Your task to perform on an android device: Search for the new Nintendo switch on Best Buy Image 0: 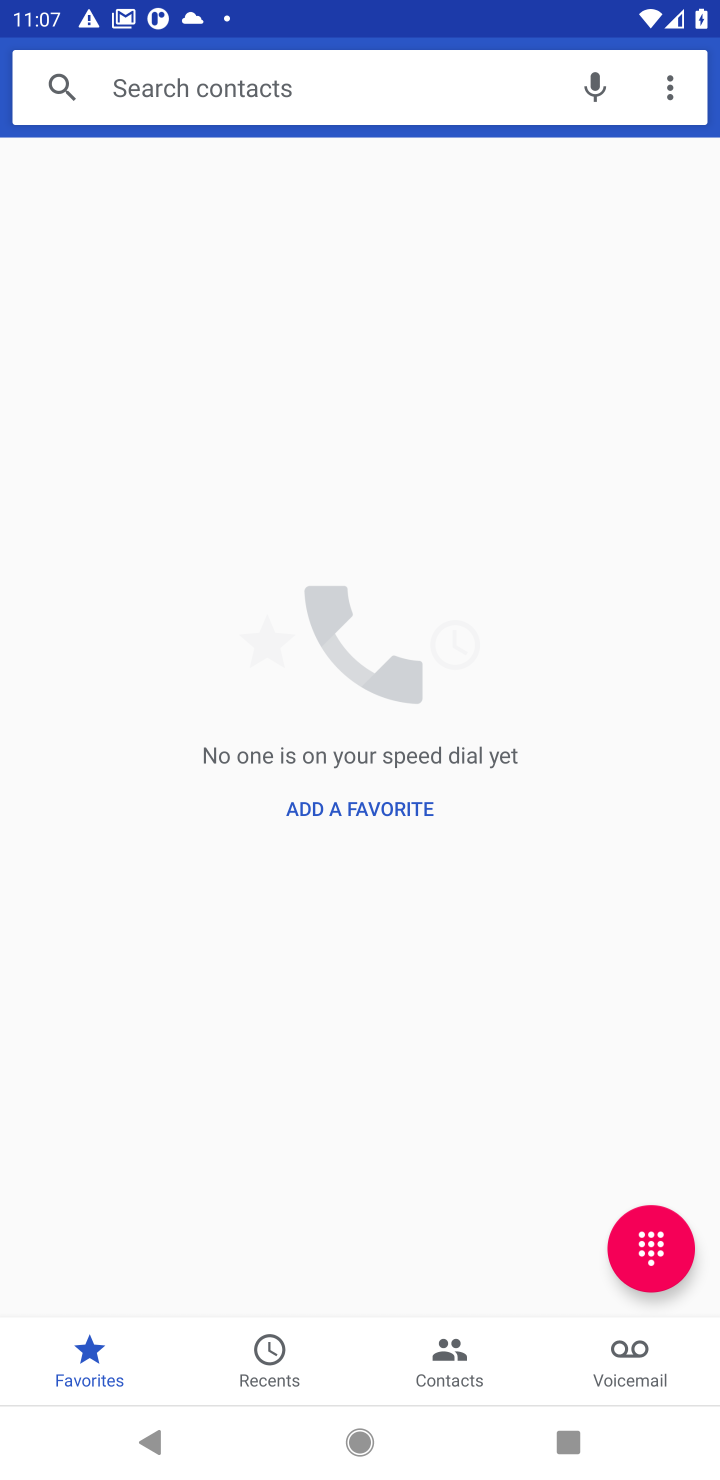
Step 0: press home button
Your task to perform on an android device: Search for the new Nintendo switch on Best Buy Image 1: 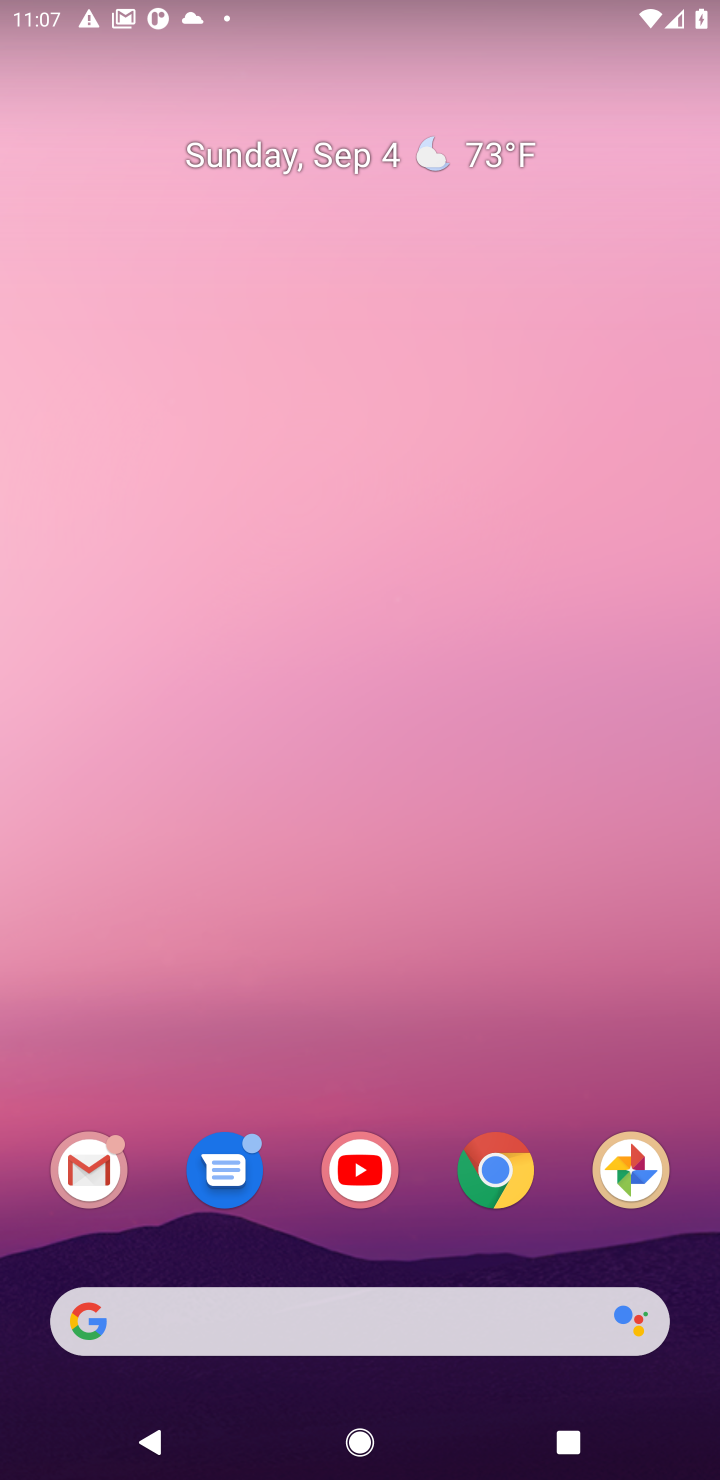
Step 1: drag from (378, 1283) to (322, 5)
Your task to perform on an android device: Search for the new Nintendo switch on Best Buy Image 2: 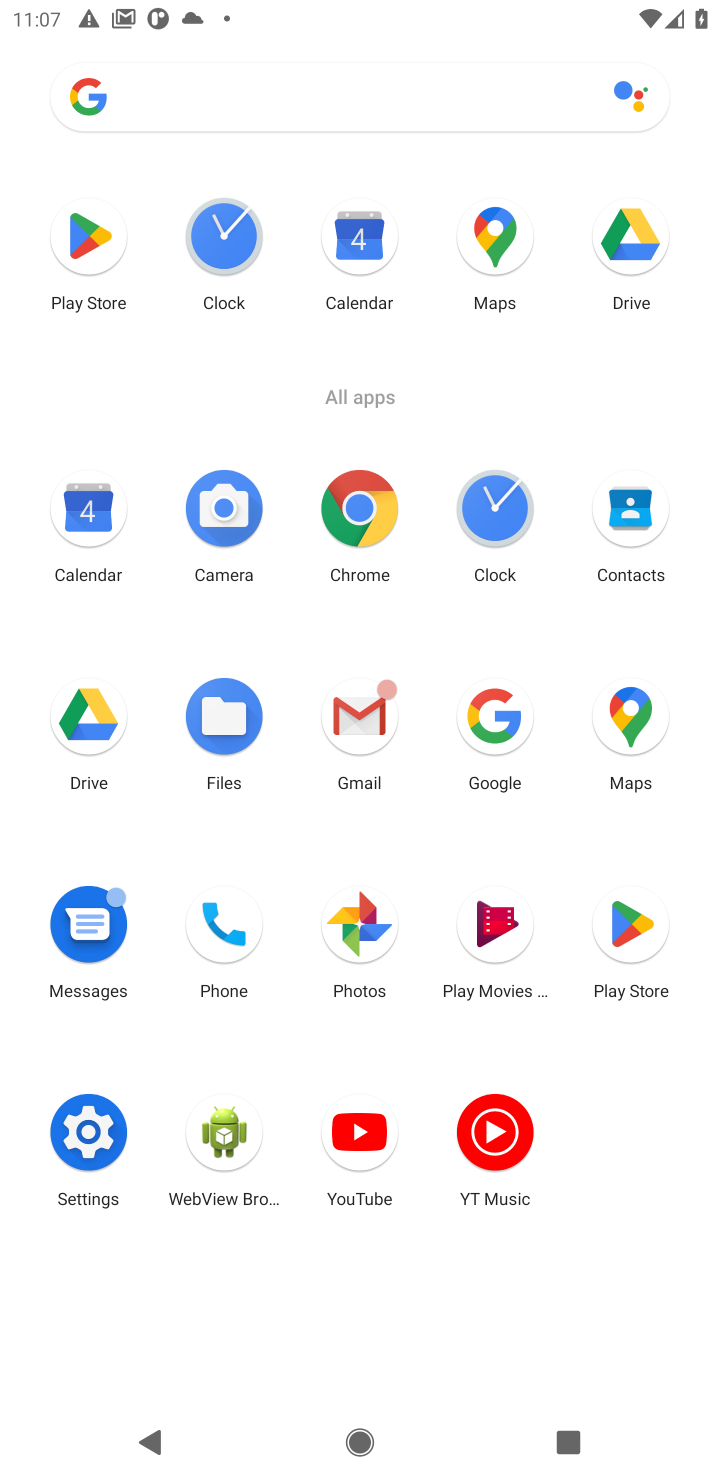
Step 2: click (348, 510)
Your task to perform on an android device: Search for the new Nintendo switch on Best Buy Image 3: 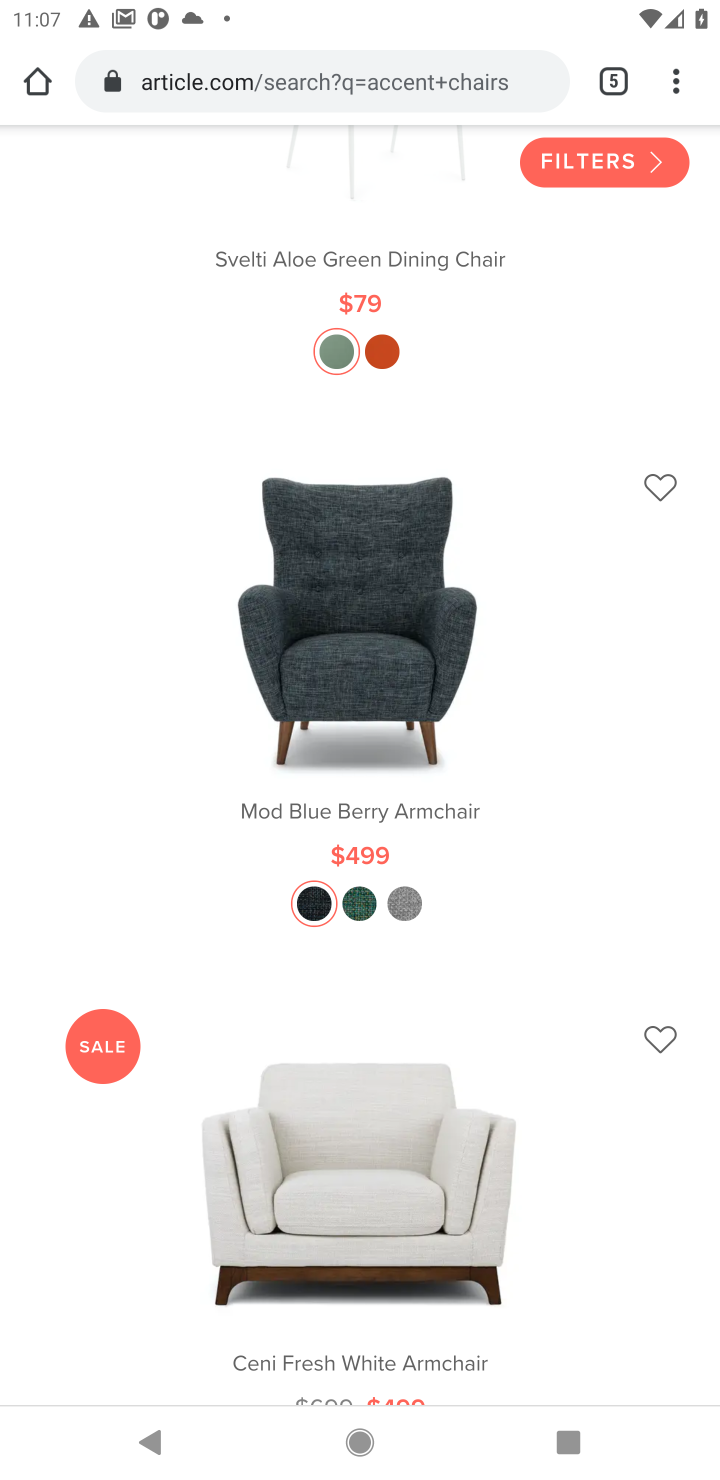
Step 3: click (488, 78)
Your task to perform on an android device: Search for the new Nintendo switch on Best Buy Image 4: 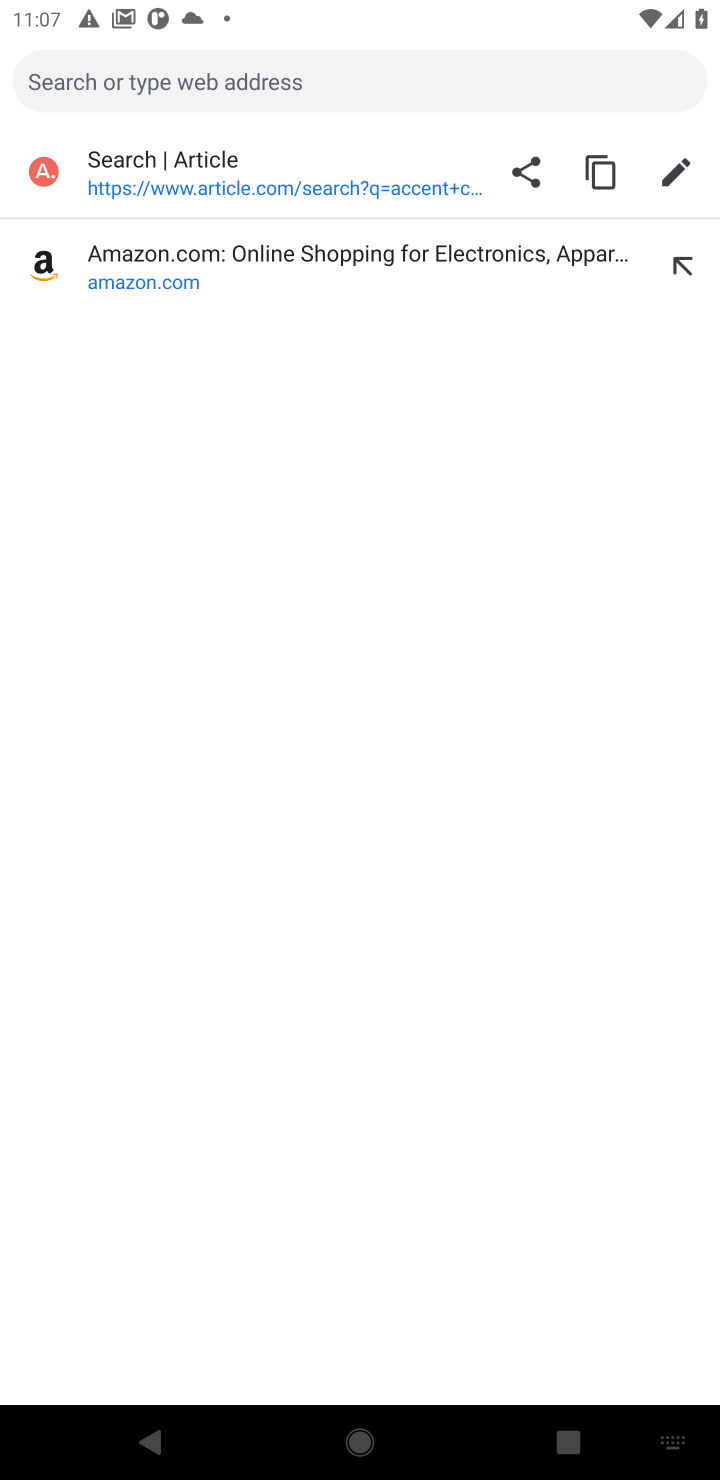
Step 4: type "Best Buy"
Your task to perform on an android device: Search for the new Nintendo switch on Best Buy Image 5: 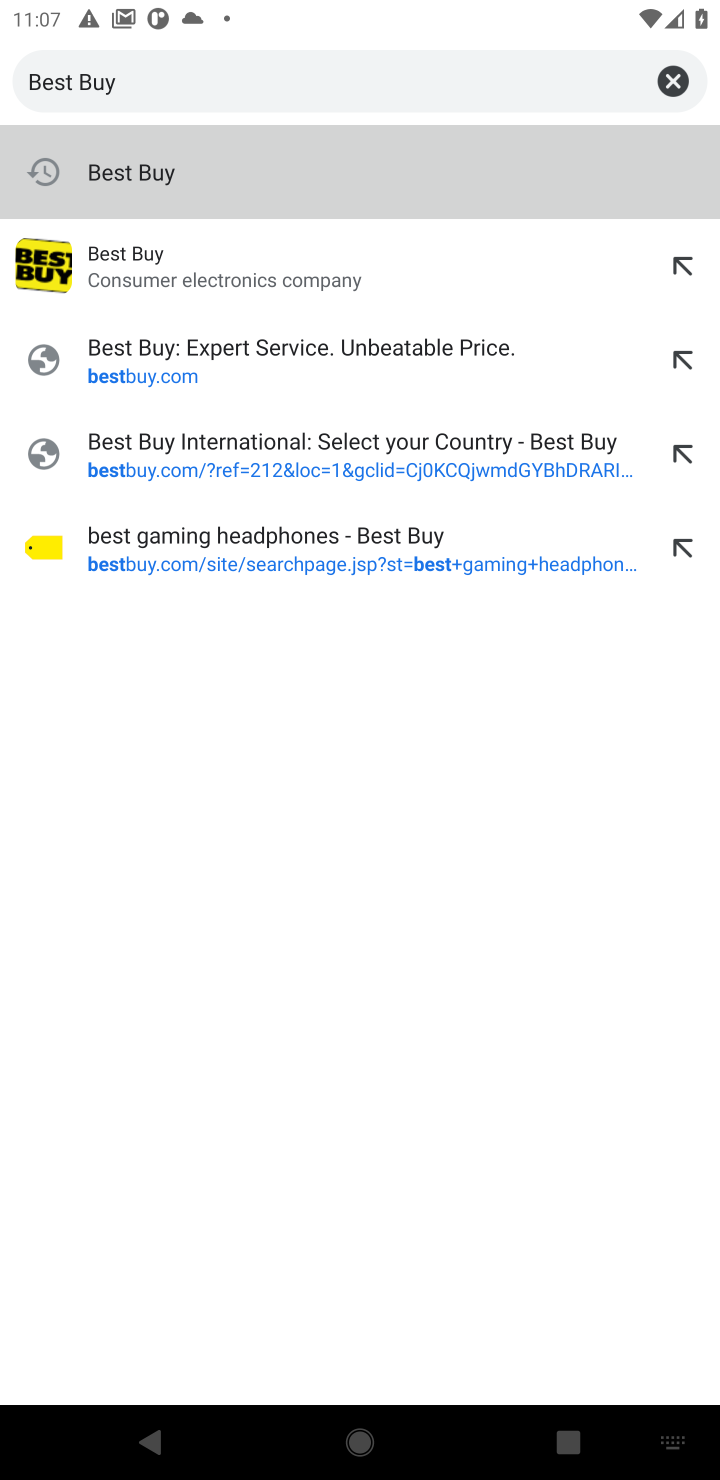
Step 5: type ""
Your task to perform on an android device: Search for the new Nintendo switch on Best Buy Image 6: 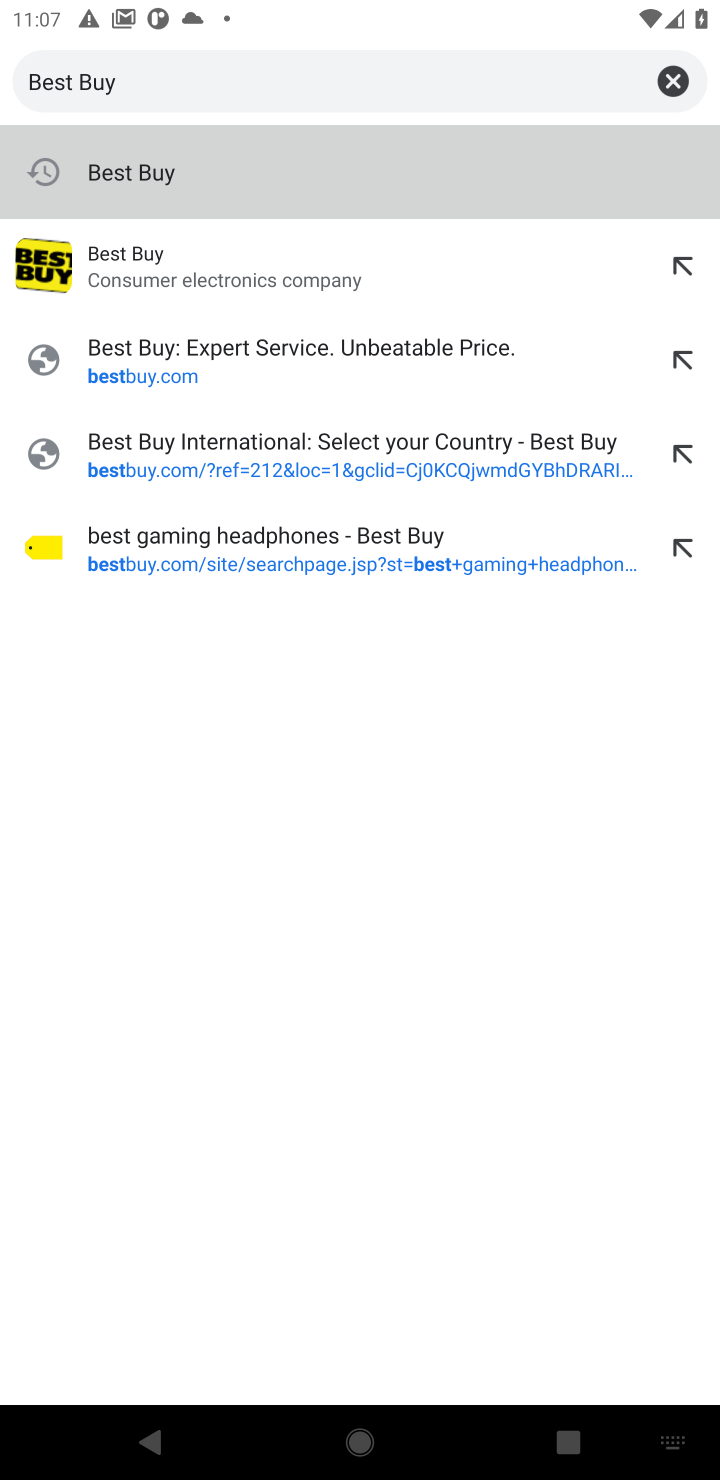
Step 6: click (173, 207)
Your task to perform on an android device: Search for the new Nintendo switch on Best Buy Image 7: 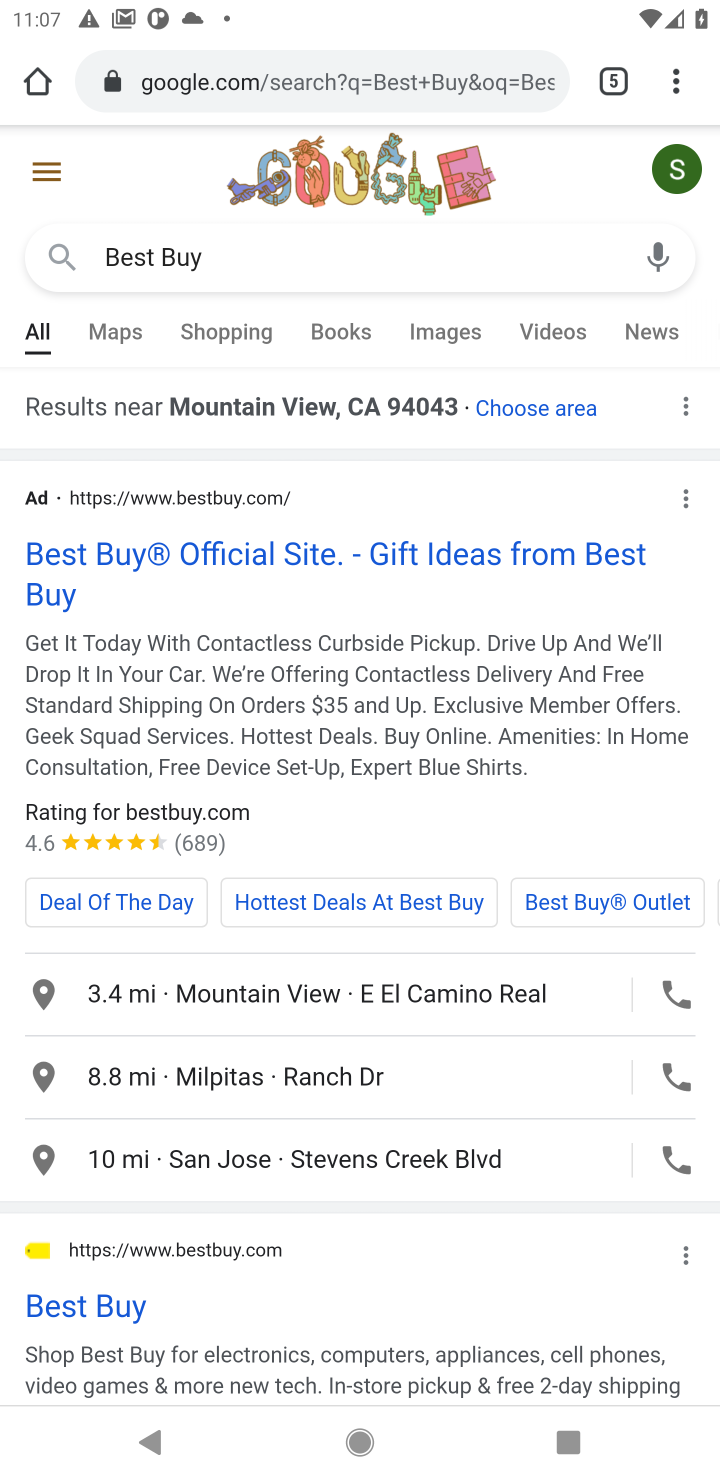
Step 7: click (225, 545)
Your task to perform on an android device: Search for the new Nintendo switch on Best Buy Image 8: 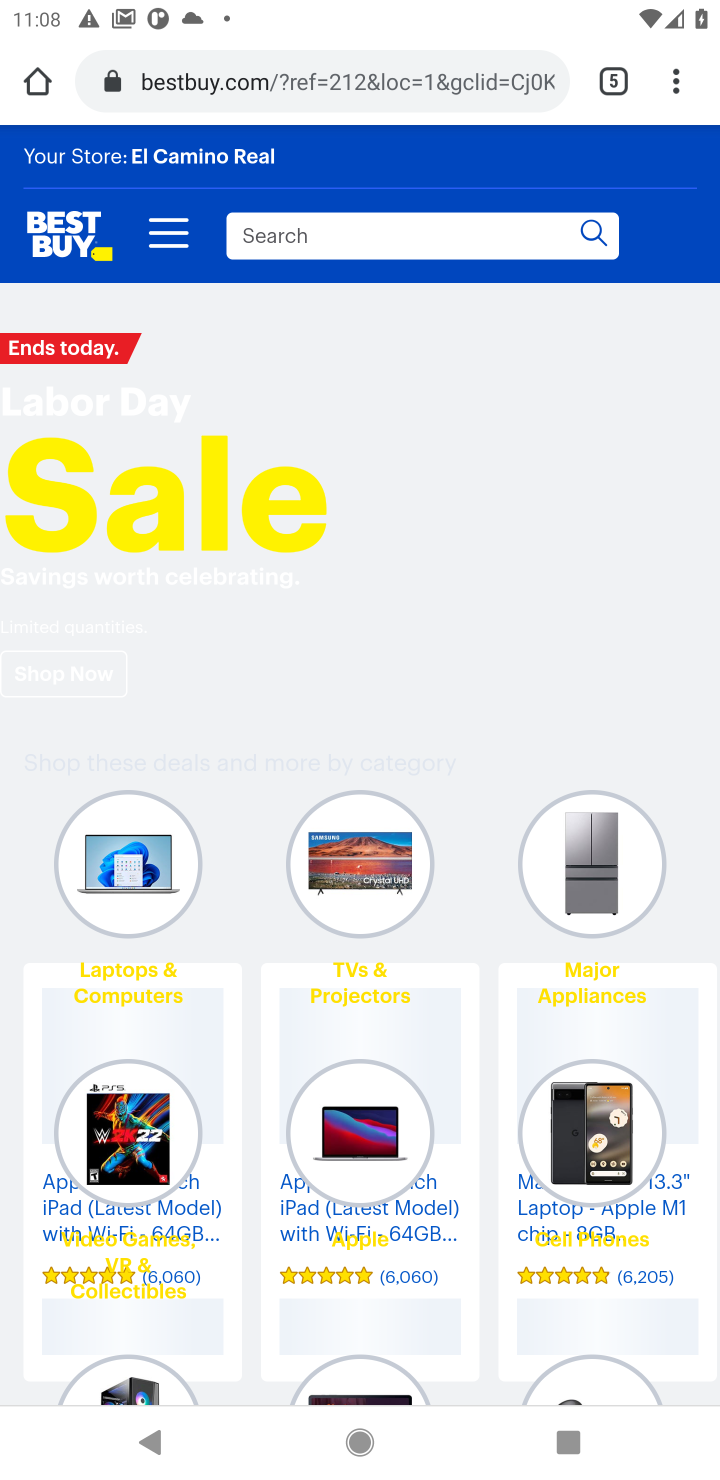
Step 8: click (299, 201)
Your task to perform on an android device: Search for the new Nintendo switch on Best Buy Image 9: 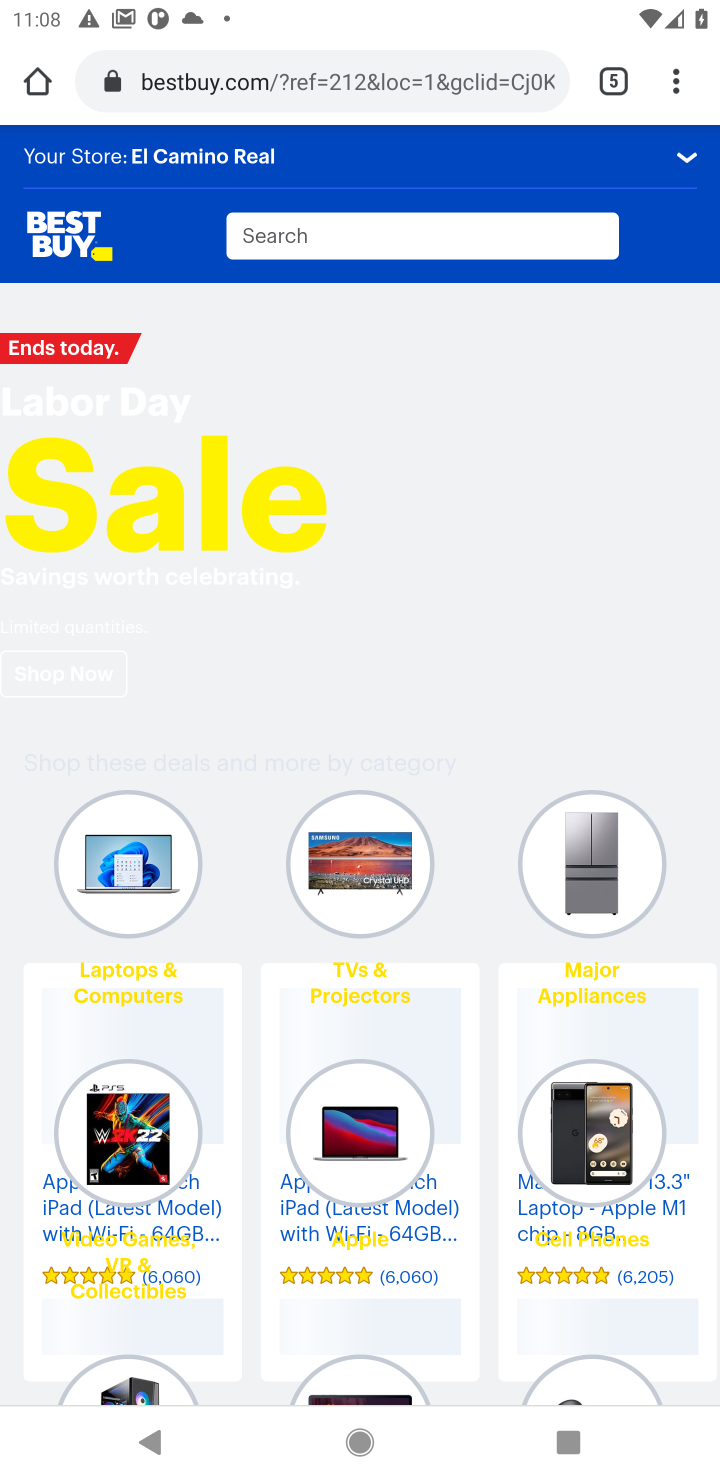
Step 9: click (326, 225)
Your task to perform on an android device: Search for the new Nintendo switch on Best Buy Image 10: 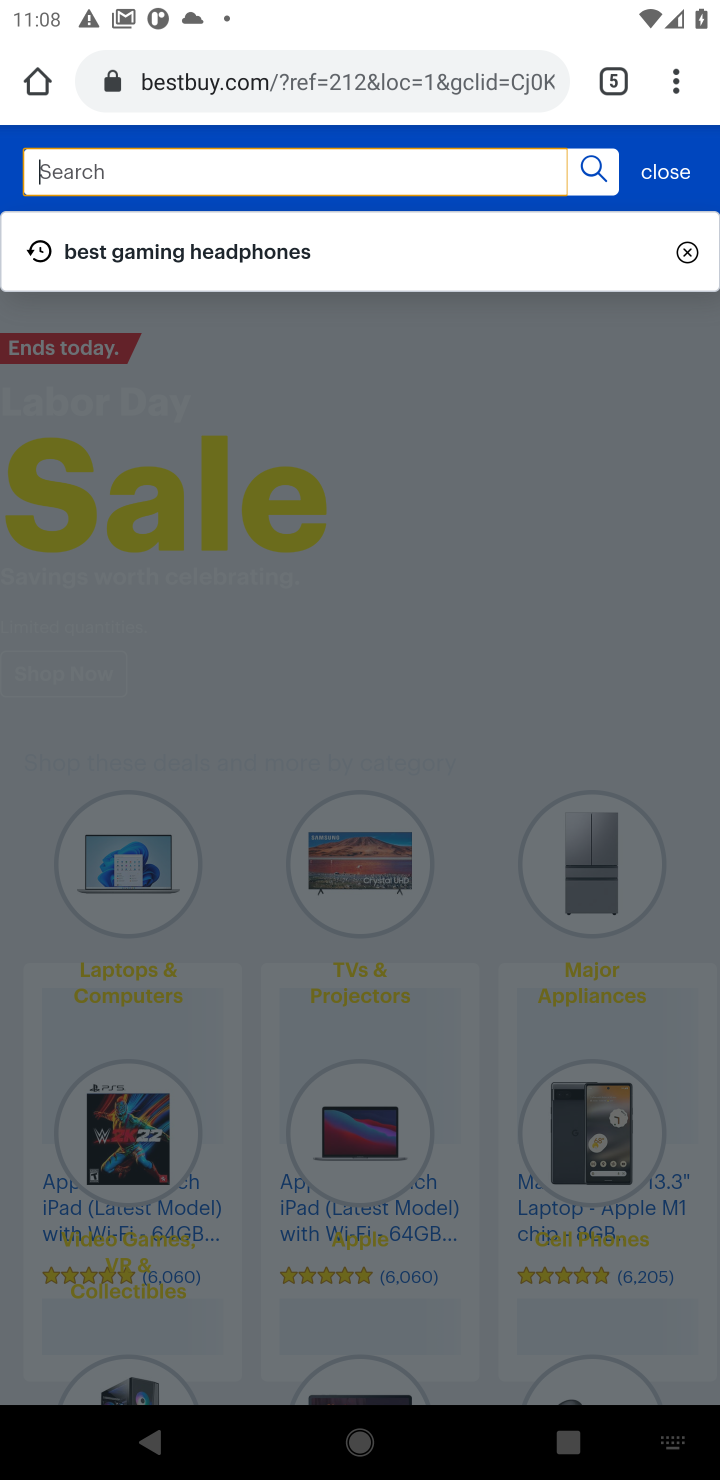
Step 10: type "the new Nintendo switch "
Your task to perform on an android device: Search for the new Nintendo switch on Best Buy Image 11: 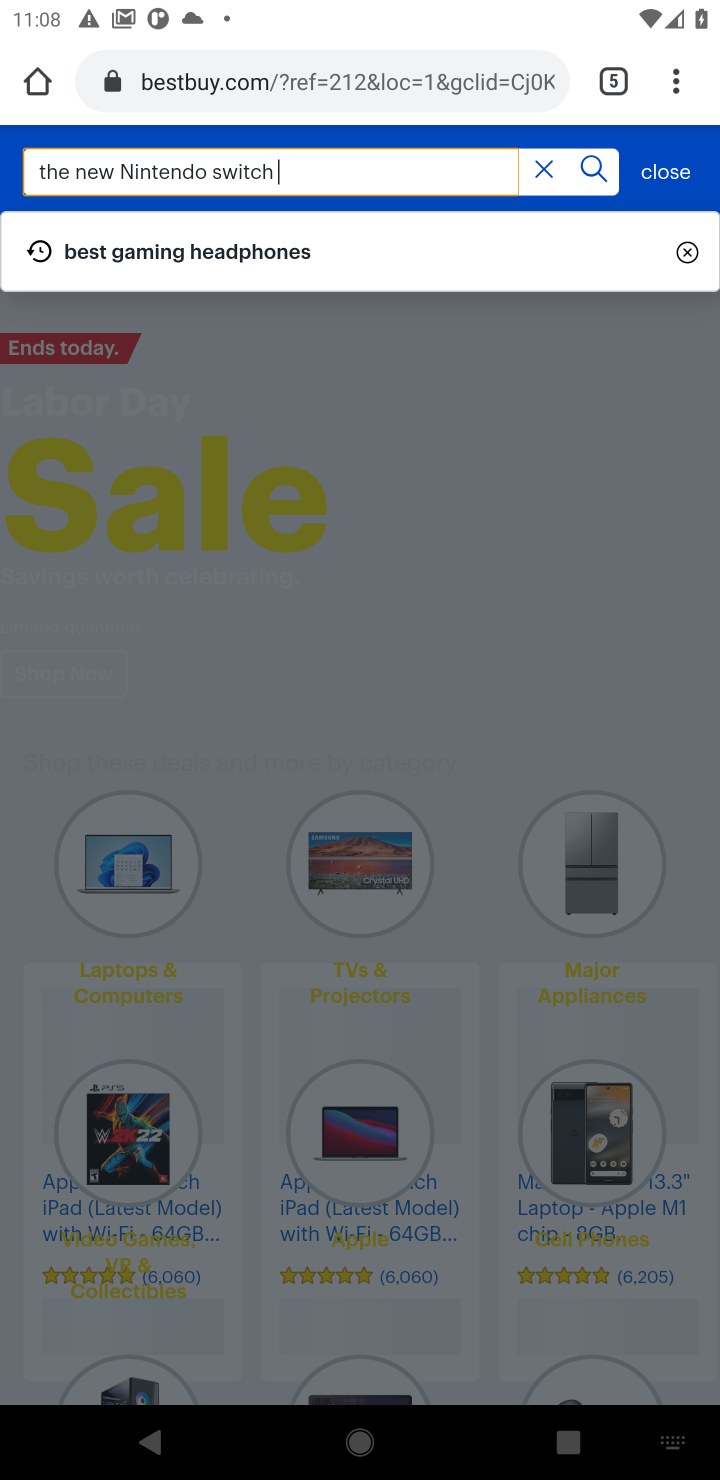
Step 11: type ""
Your task to perform on an android device: Search for the new Nintendo switch on Best Buy Image 12: 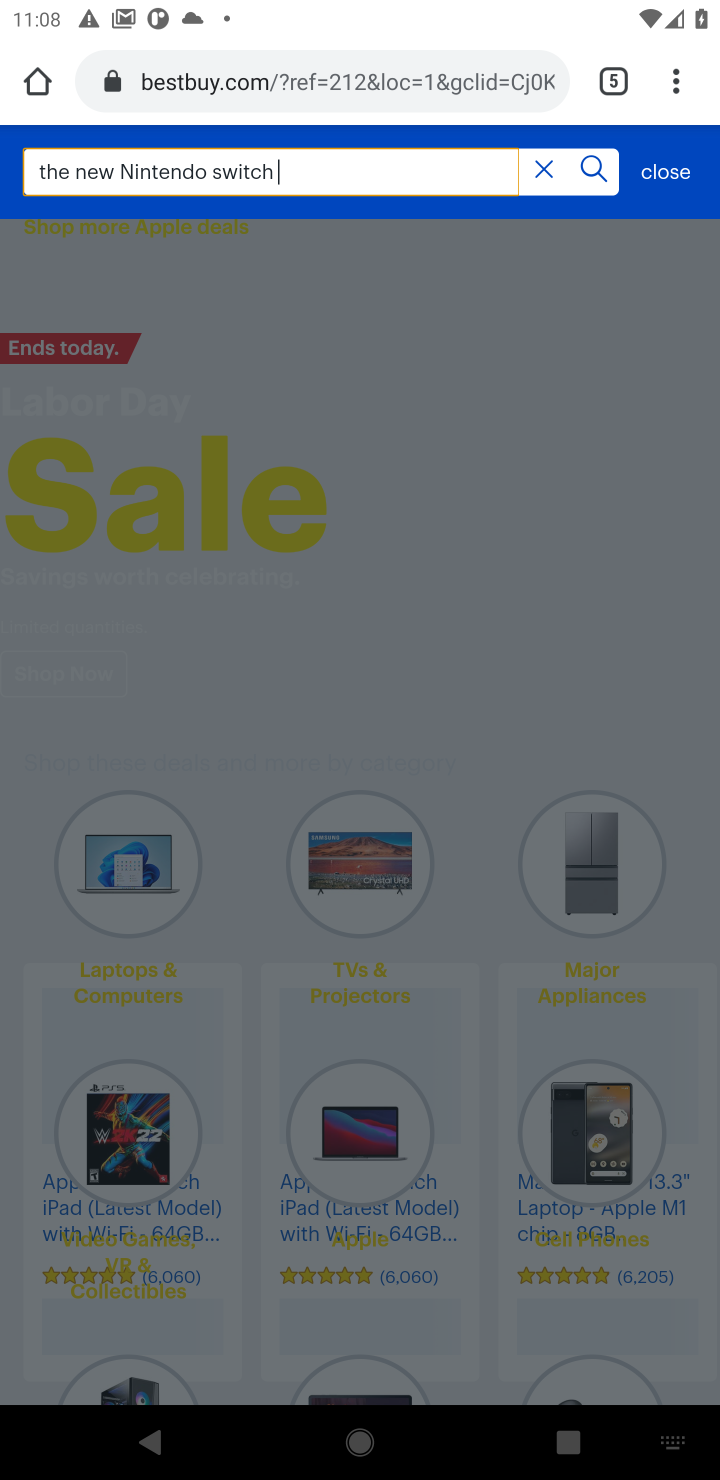
Step 12: click (585, 163)
Your task to perform on an android device: Search for the new Nintendo switch on Best Buy Image 13: 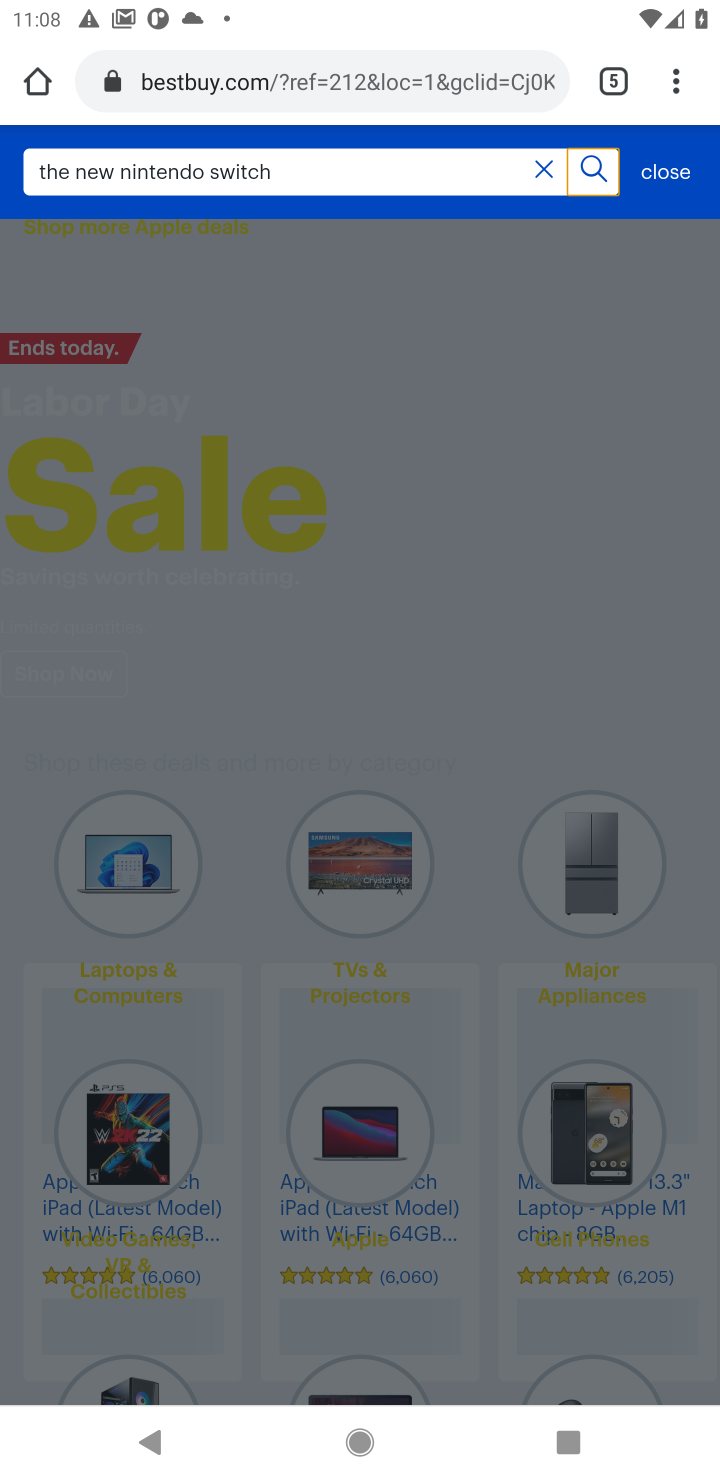
Step 13: click (585, 167)
Your task to perform on an android device: Search for the new Nintendo switch on Best Buy Image 14: 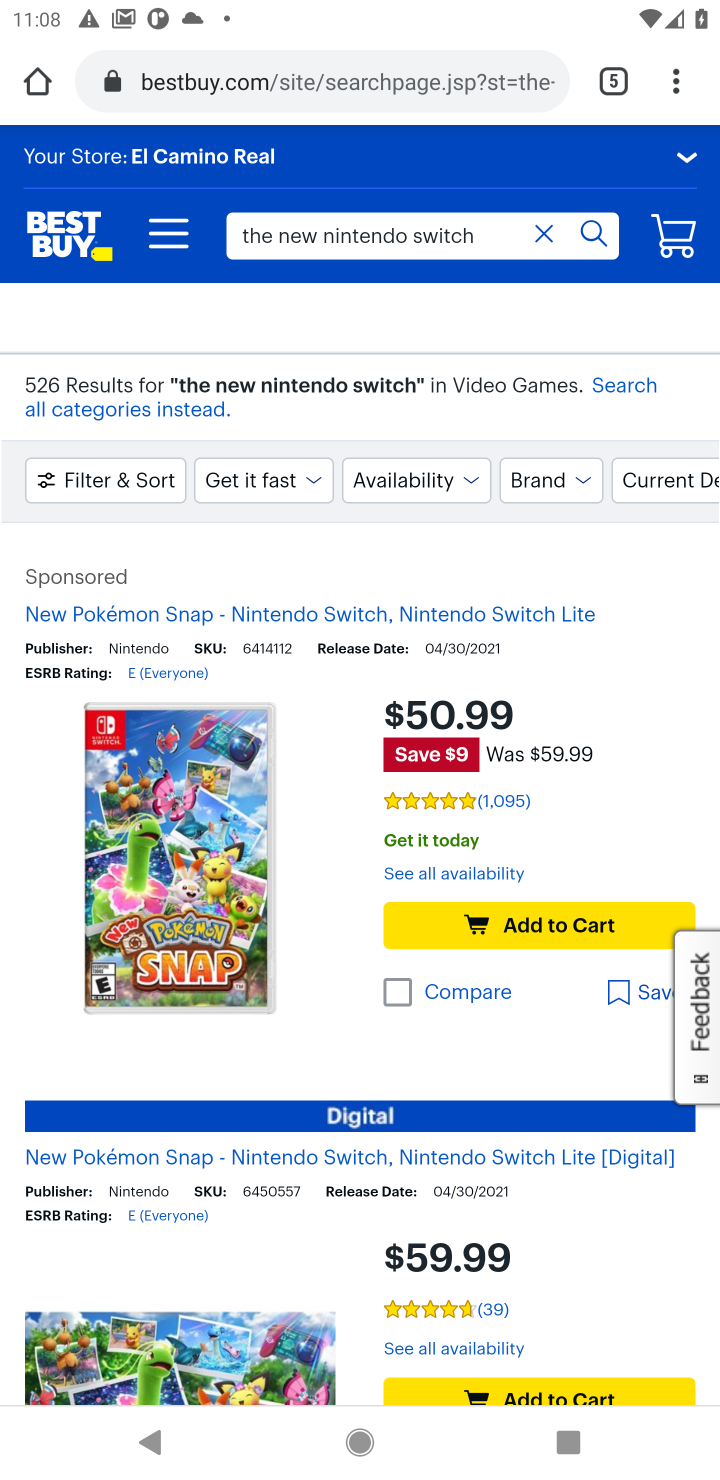
Step 14: task complete